Your task to perform on an android device: toggle javascript in the chrome app Image 0: 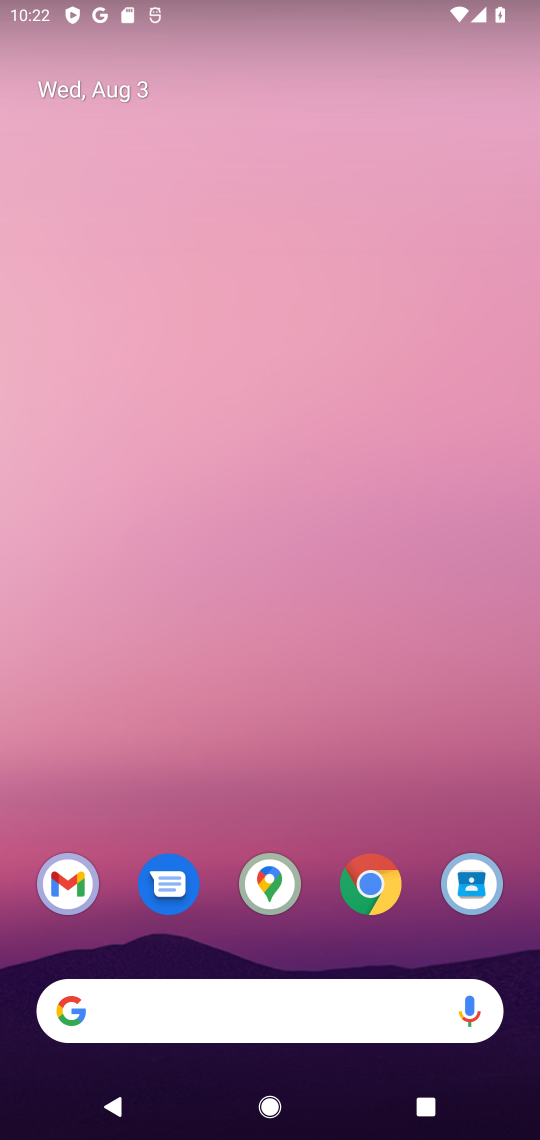
Step 0: press home button
Your task to perform on an android device: toggle javascript in the chrome app Image 1: 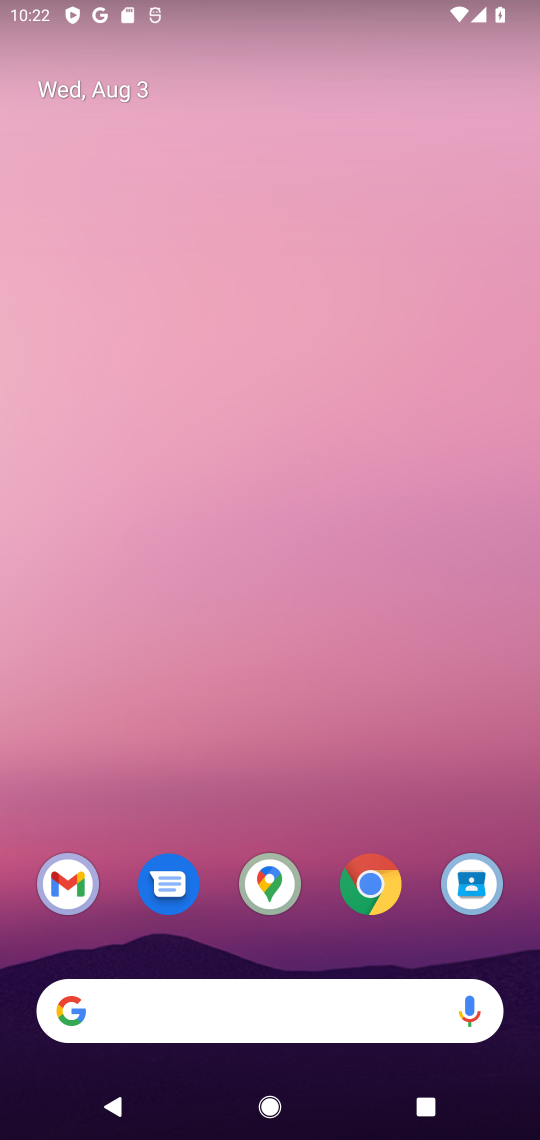
Step 1: click (361, 896)
Your task to perform on an android device: toggle javascript in the chrome app Image 2: 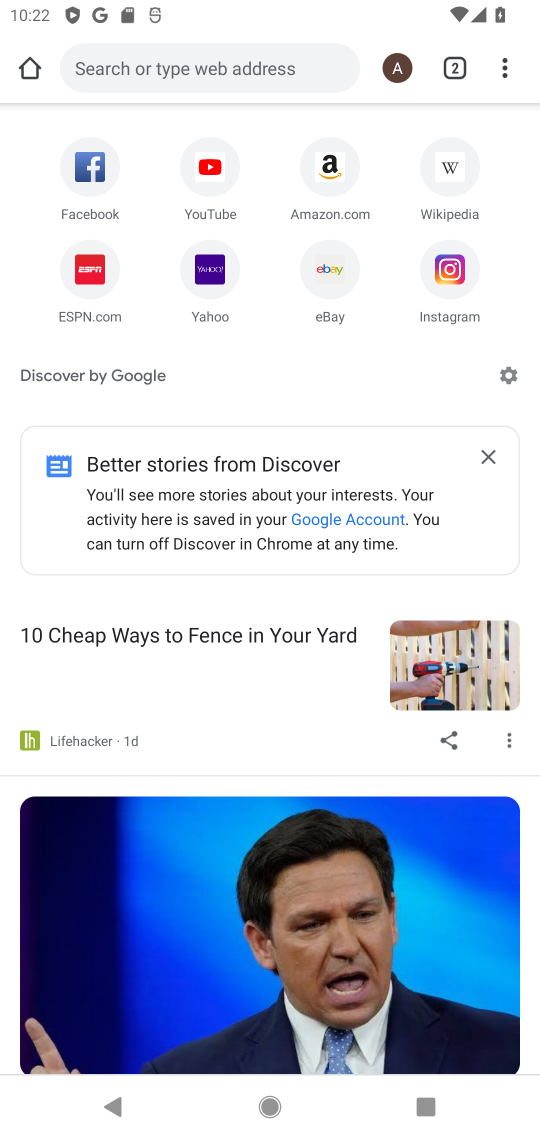
Step 2: drag from (510, 74) to (342, 666)
Your task to perform on an android device: toggle javascript in the chrome app Image 3: 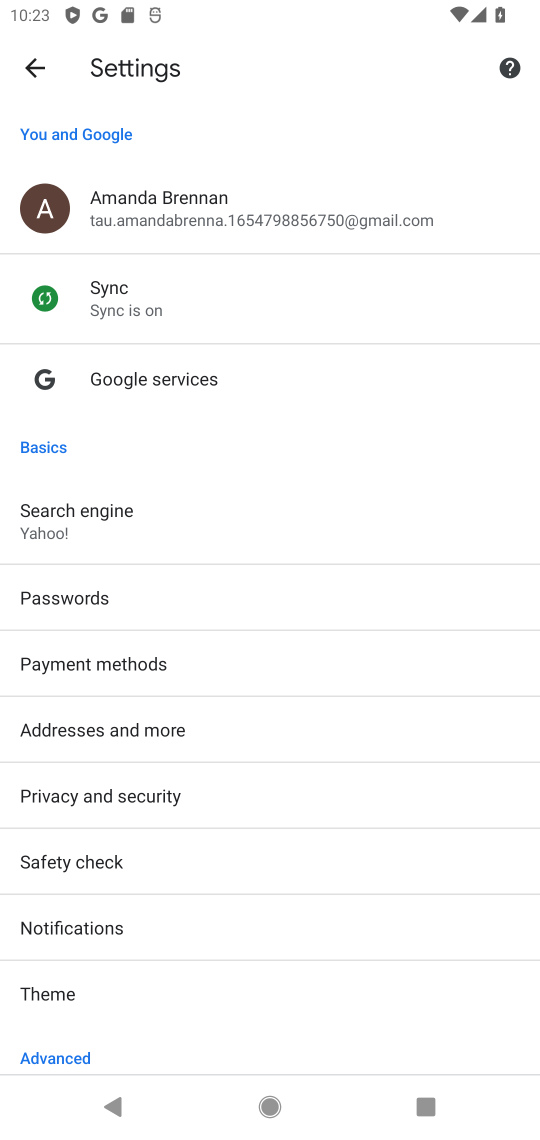
Step 3: drag from (326, 1003) to (330, 361)
Your task to perform on an android device: toggle javascript in the chrome app Image 4: 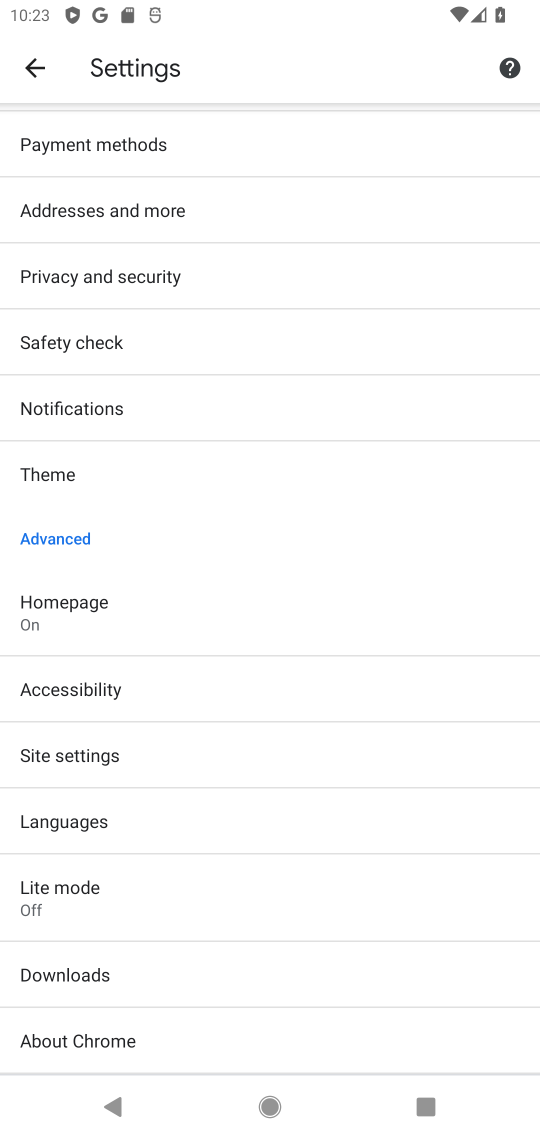
Step 4: click (71, 757)
Your task to perform on an android device: toggle javascript in the chrome app Image 5: 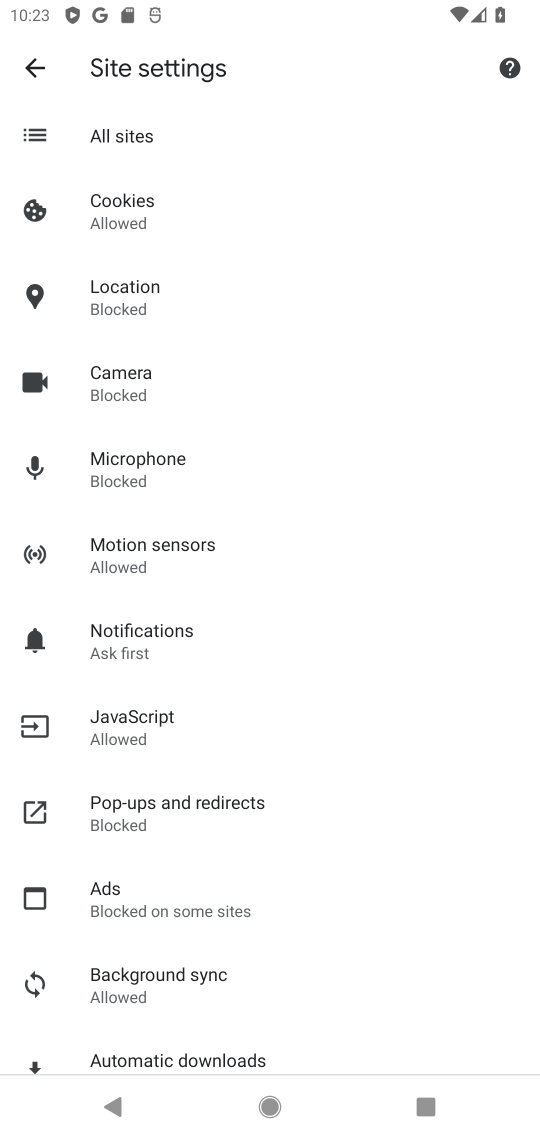
Step 5: click (132, 730)
Your task to perform on an android device: toggle javascript in the chrome app Image 6: 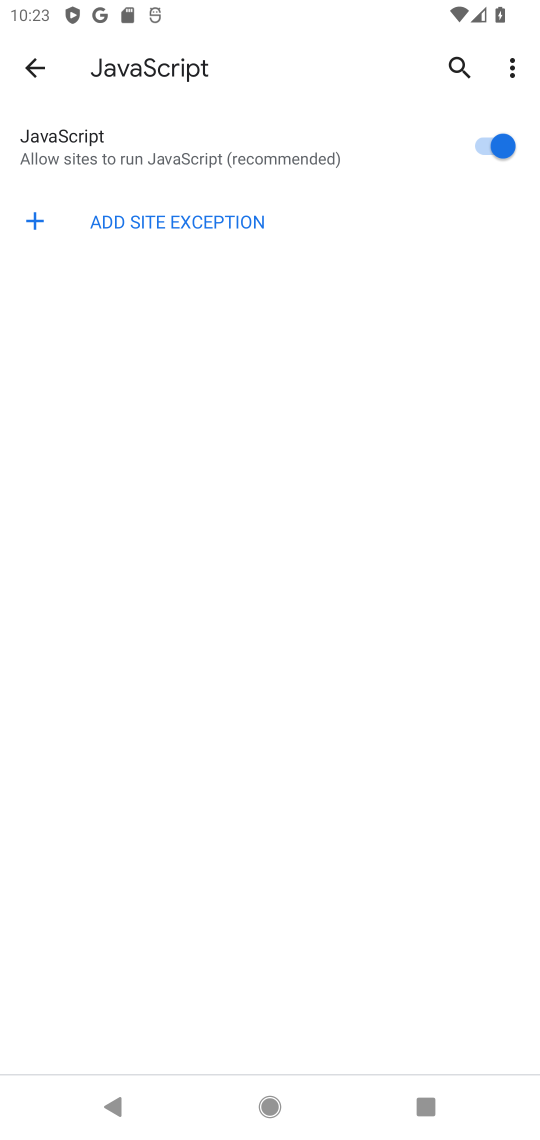
Step 6: click (512, 157)
Your task to perform on an android device: toggle javascript in the chrome app Image 7: 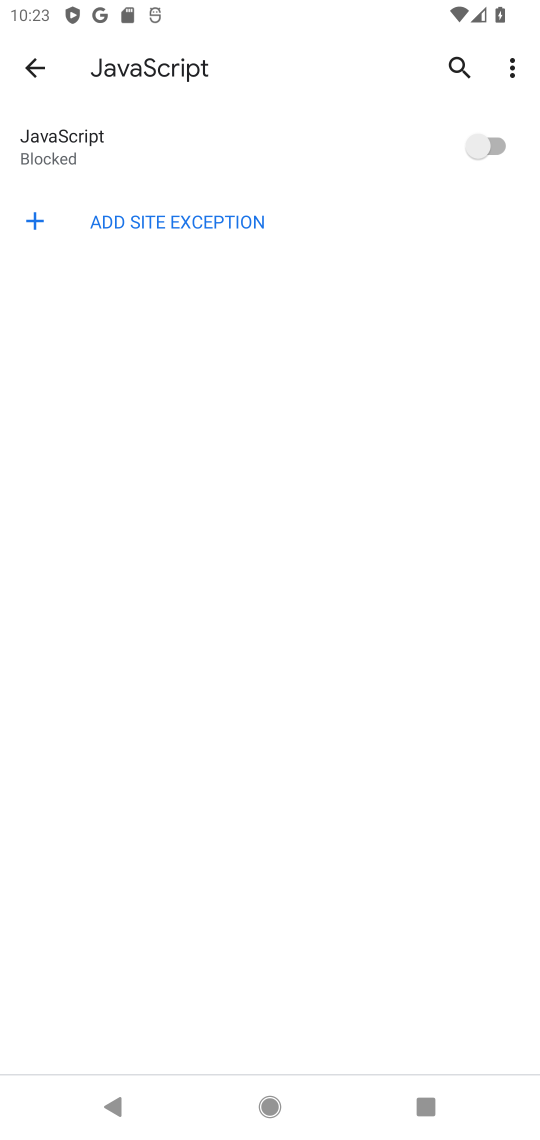
Step 7: task complete